Your task to perform on an android device: toggle translation in the chrome app Image 0: 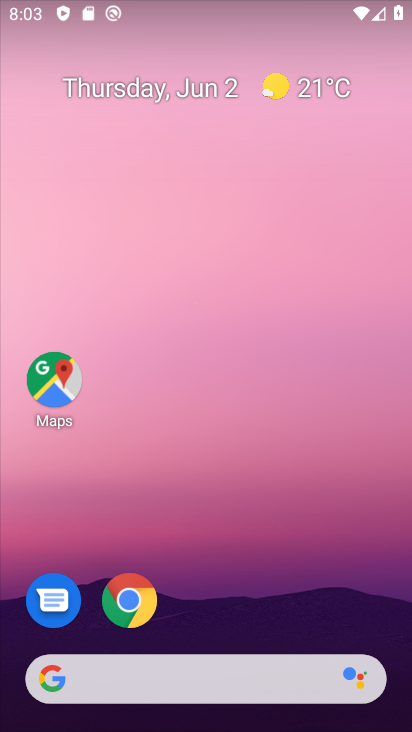
Step 0: click (131, 607)
Your task to perform on an android device: toggle translation in the chrome app Image 1: 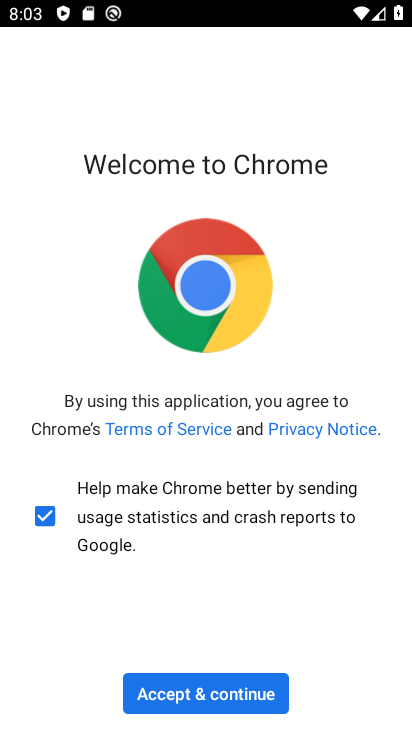
Step 1: click (244, 702)
Your task to perform on an android device: toggle translation in the chrome app Image 2: 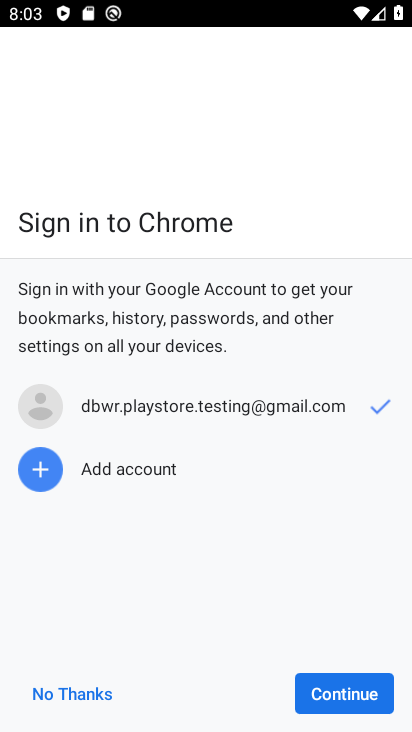
Step 2: click (324, 698)
Your task to perform on an android device: toggle translation in the chrome app Image 3: 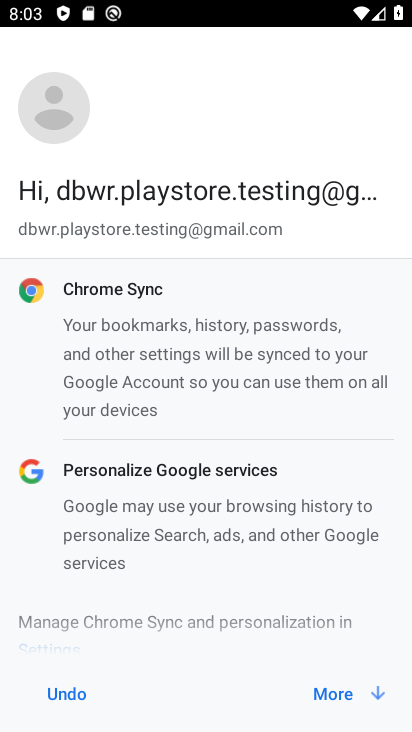
Step 3: click (324, 698)
Your task to perform on an android device: toggle translation in the chrome app Image 4: 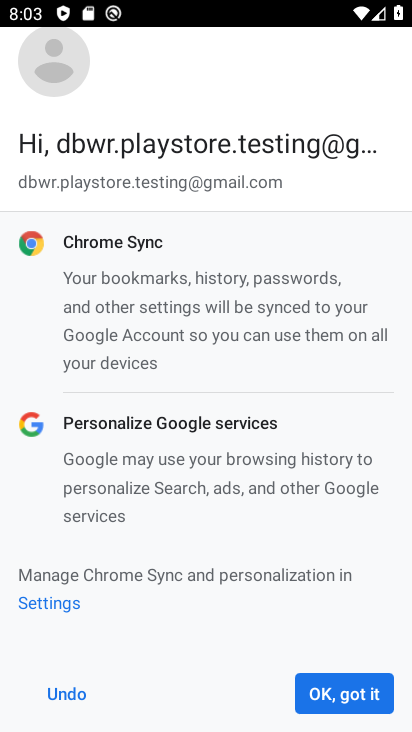
Step 4: click (351, 691)
Your task to perform on an android device: toggle translation in the chrome app Image 5: 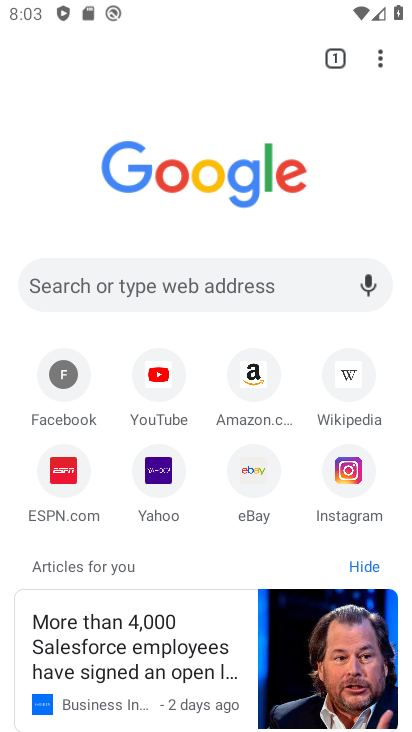
Step 5: drag from (381, 64) to (180, 480)
Your task to perform on an android device: toggle translation in the chrome app Image 6: 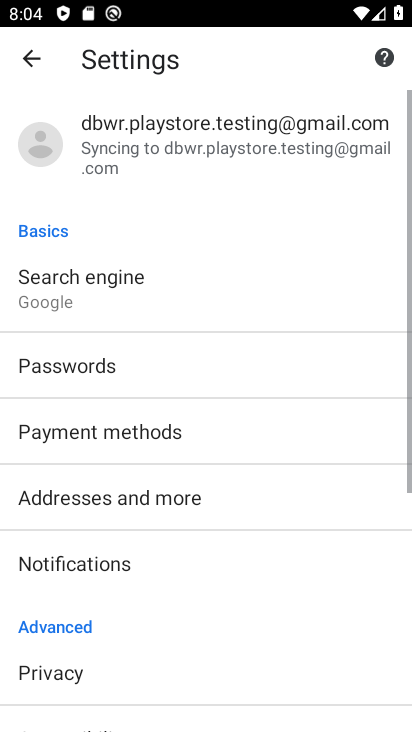
Step 6: drag from (180, 718) to (155, 313)
Your task to perform on an android device: toggle translation in the chrome app Image 7: 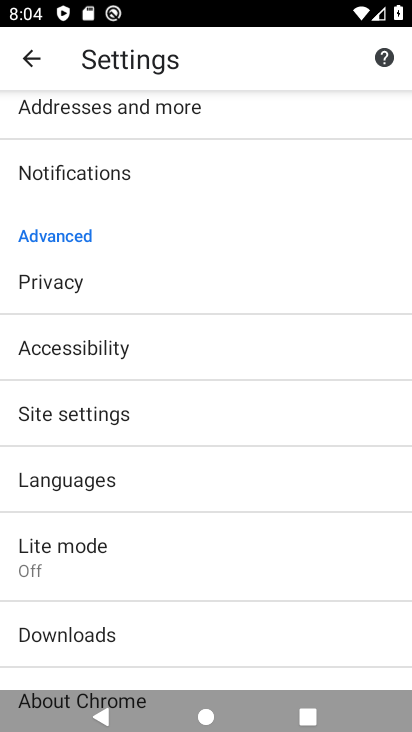
Step 7: click (161, 485)
Your task to perform on an android device: toggle translation in the chrome app Image 8: 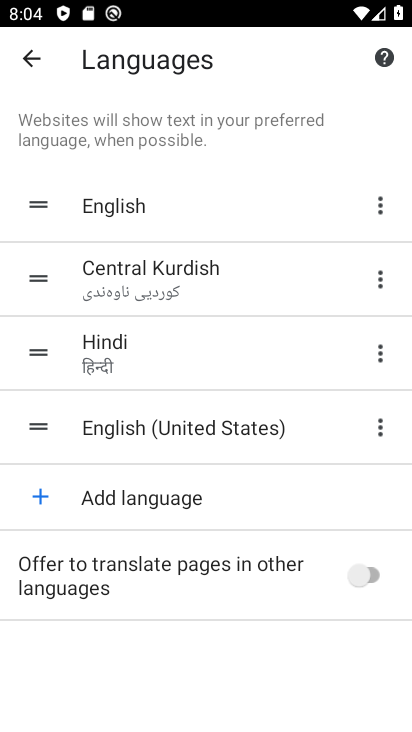
Step 8: click (377, 572)
Your task to perform on an android device: toggle translation in the chrome app Image 9: 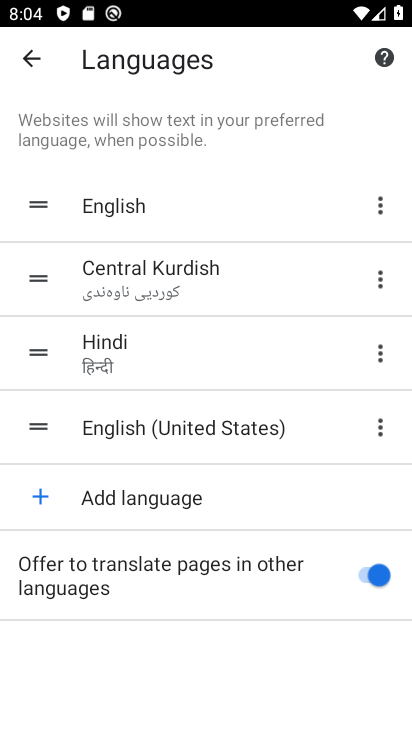
Step 9: task complete